Your task to perform on an android device: turn on translation in the chrome app Image 0: 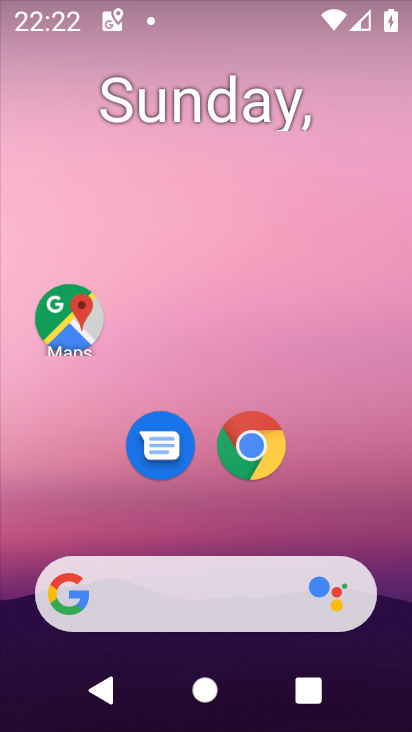
Step 0: press home button
Your task to perform on an android device: turn on translation in the chrome app Image 1: 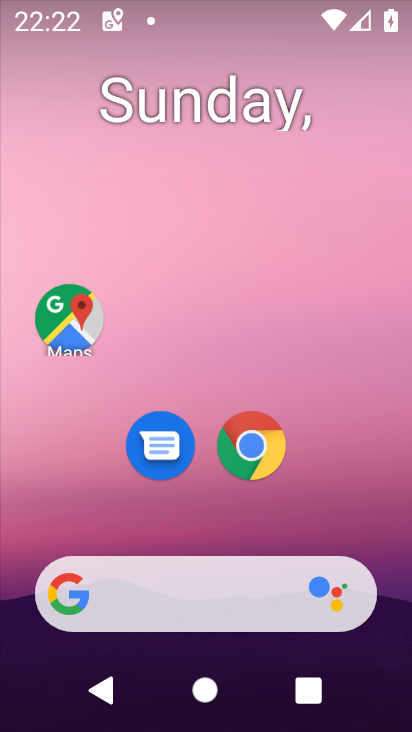
Step 1: click (246, 455)
Your task to perform on an android device: turn on translation in the chrome app Image 2: 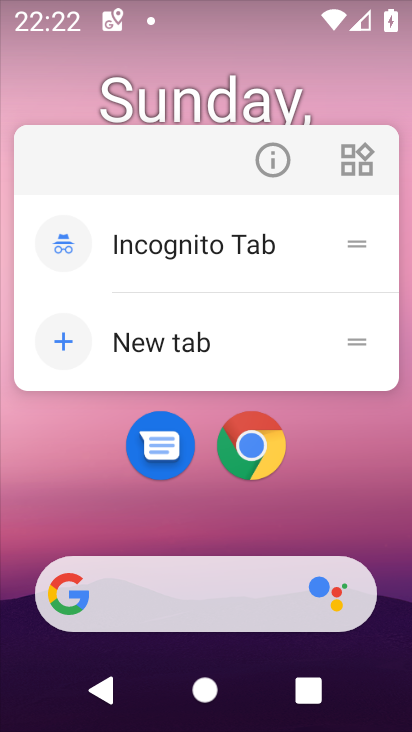
Step 2: click (271, 453)
Your task to perform on an android device: turn on translation in the chrome app Image 3: 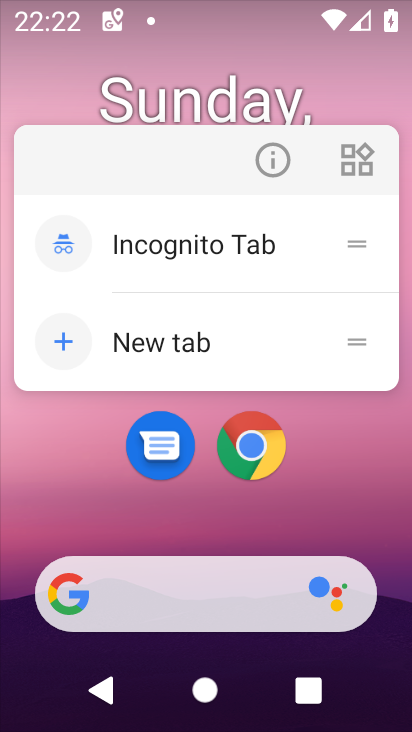
Step 3: click (271, 453)
Your task to perform on an android device: turn on translation in the chrome app Image 4: 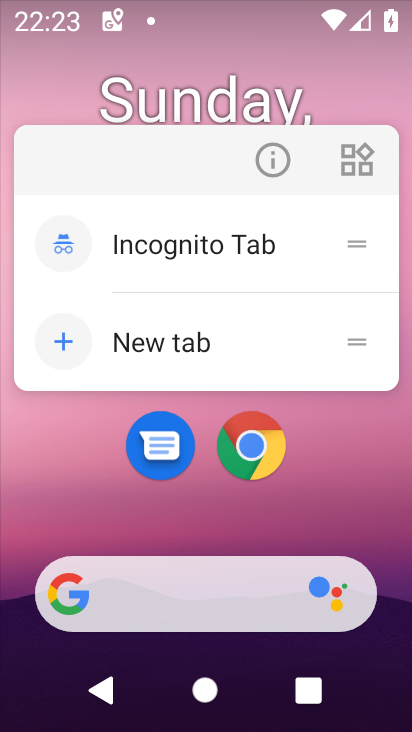
Step 4: click (338, 470)
Your task to perform on an android device: turn on translation in the chrome app Image 5: 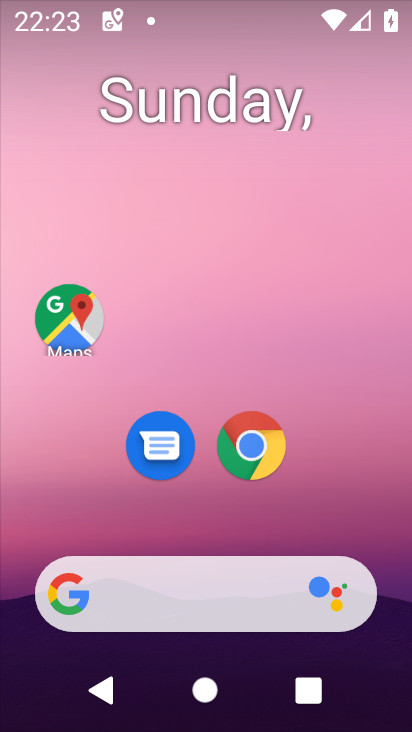
Step 5: click (256, 438)
Your task to perform on an android device: turn on translation in the chrome app Image 6: 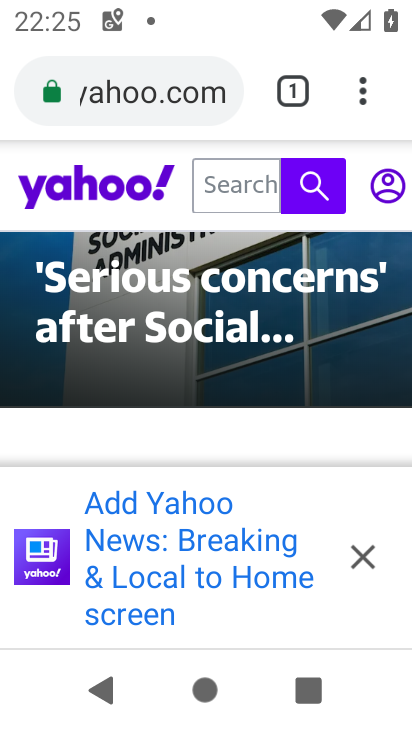
Step 6: drag from (358, 80) to (84, 463)
Your task to perform on an android device: turn on translation in the chrome app Image 7: 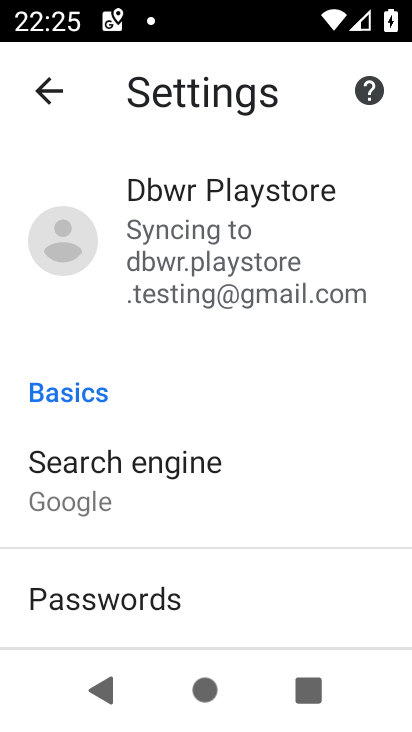
Step 7: drag from (328, 574) to (245, 258)
Your task to perform on an android device: turn on translation in the chrome app Image 8: 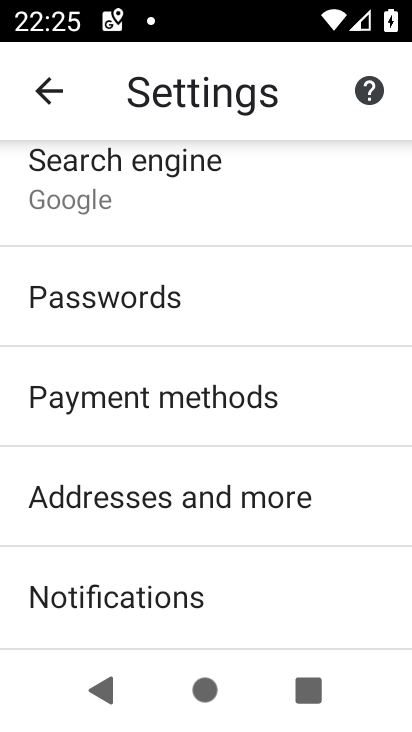
Step 8: drag from (306, 600) to (182, 360)
Your task to perform on an android device: turn on translation in the chrome app Image 9: 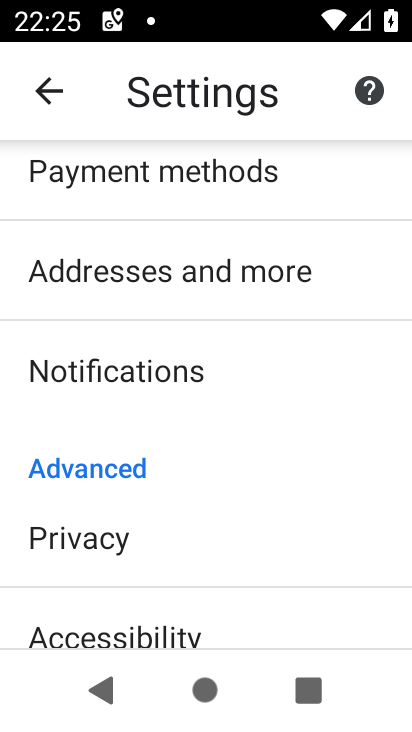
Step 9: drag from (290, 563) to (204, 368)
Your task to perform on an android device: turn on translation in the chrome app Image 10: 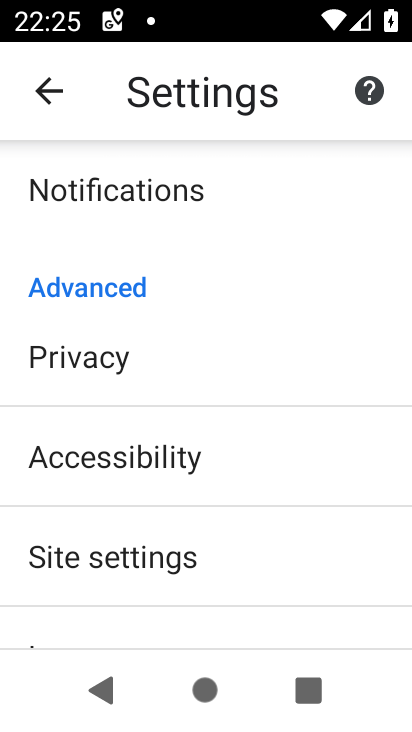
Step 10: drag from (153, 561) to (148, 236)
Your task to perform on an android device: turn on translation in the chrome app Image 11: 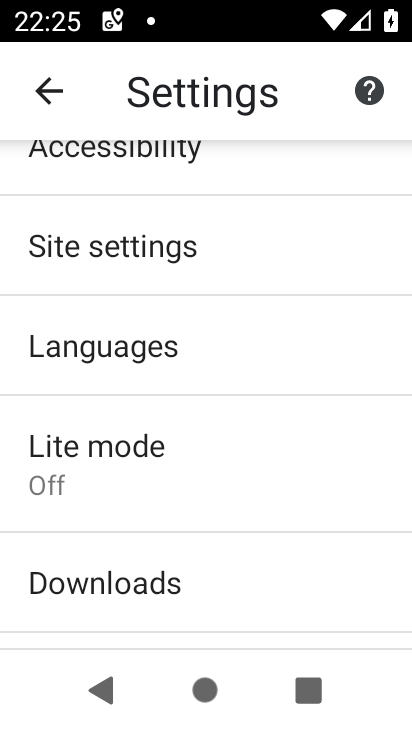
Step 11: click (142, 467)
Your task to perform on an android device: turn on translation in the chrome app Image 12: 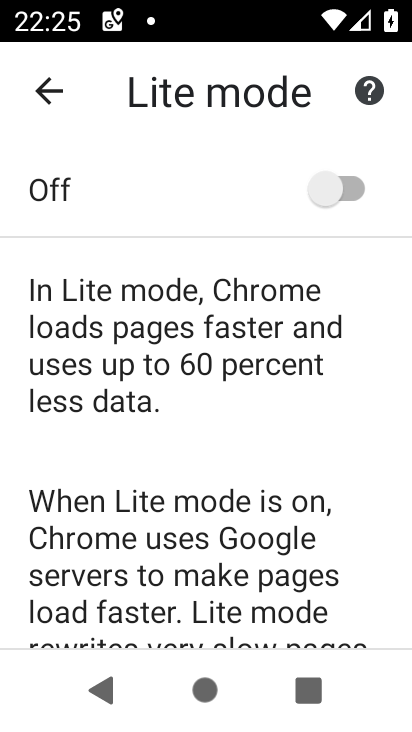
Step 12: click (235, 186)
Your task to perform on an android device: turn on translation in the chrome app Image 13: 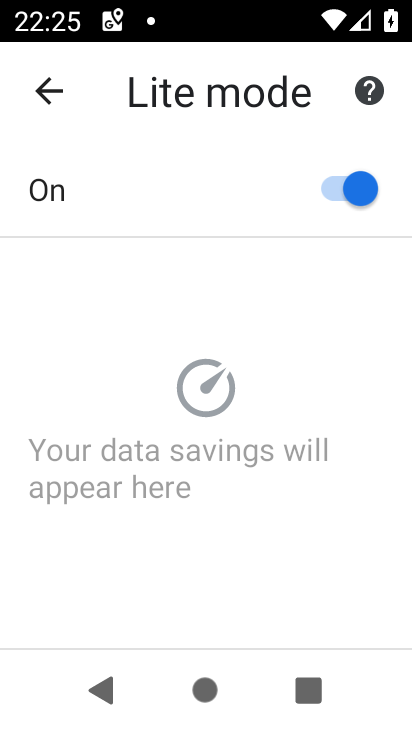
Step 13: task complete